Your task to perform on an android device: Open Google Chrome and open the bookmarks view Image 0: 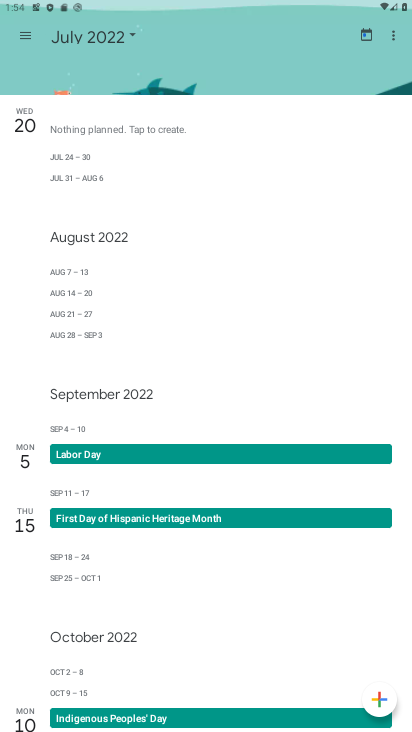
Step 0: press home button
Your task to perform on an android device: Open Google Chrome and open the bookmarks view Image 1: 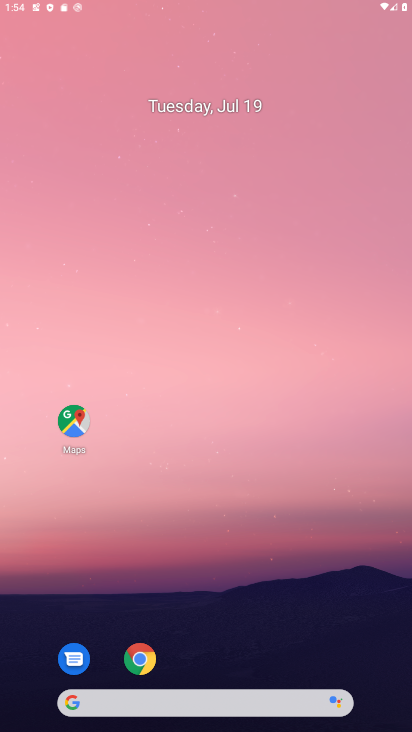
Step 1: drag from (335, 668) to (325, 54)
Your task to perform on an android device: Open Google Chrome and open the bookmarks view Image 2: 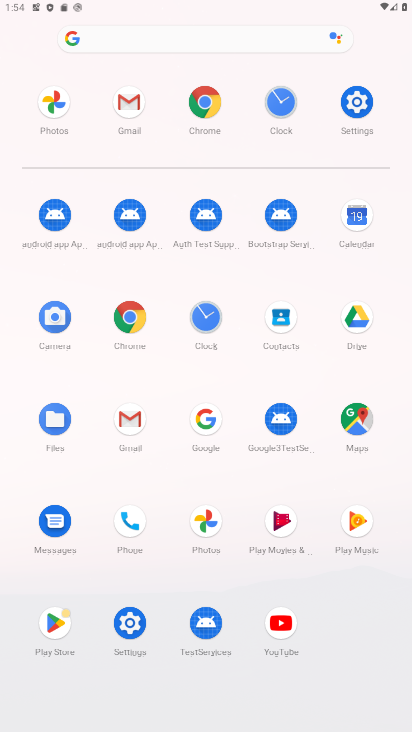
Step 2: click (140, 315)
Your task to perform on an android device: Open Google Chrome and open the bookmarks view Image 3: 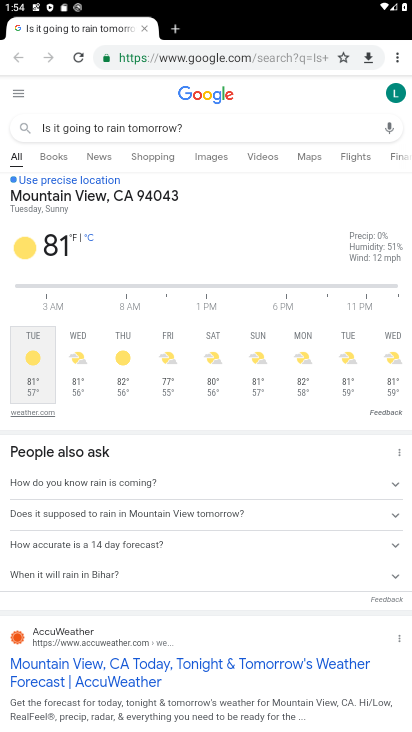
Step 3: task complete